Your task to perform on an android device: toggle improve location accuracy Image 0: 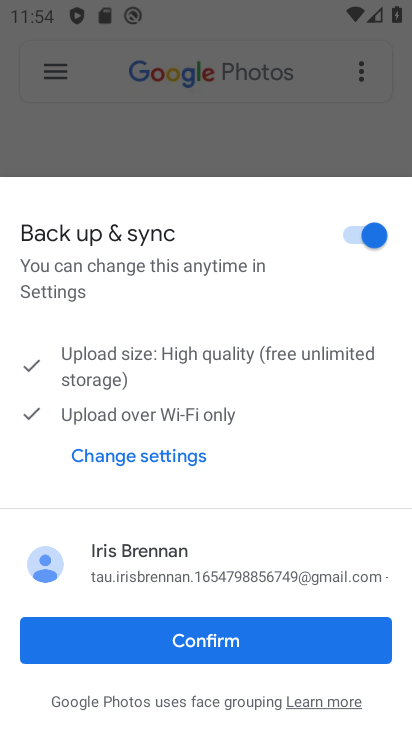
Step 0: press home button
Your task to perform on an android device: toggle improve location accuracy Image 1: 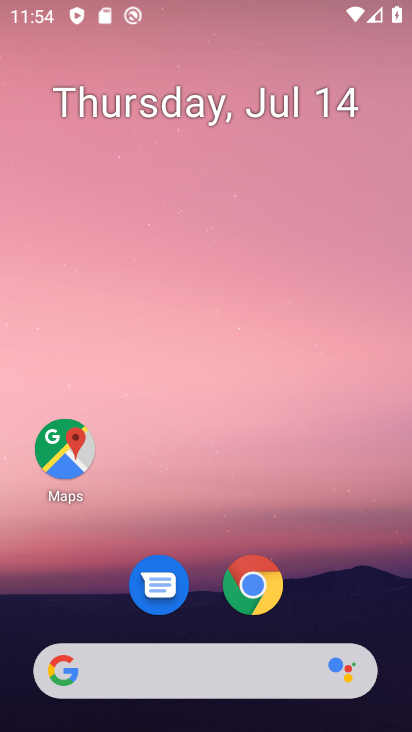
Step 1: drag from (295, 470) to (302, 33)
Your task to perform on an android device: toggle improve location accuracy Image 2: 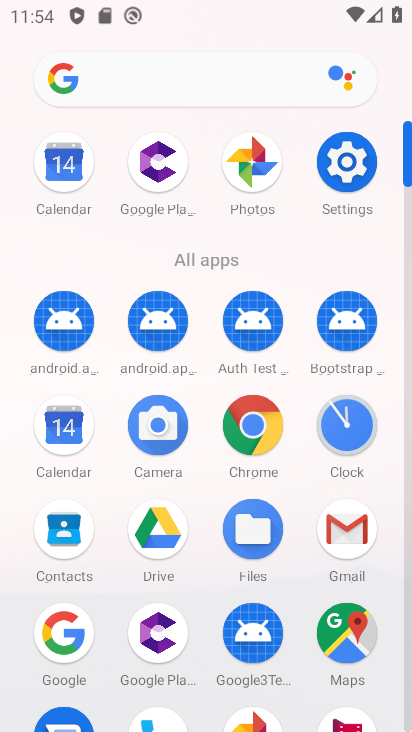
Step 2: click (344, 173)
Your task to perform on an android device: toggle improve location accuracy Image 3: 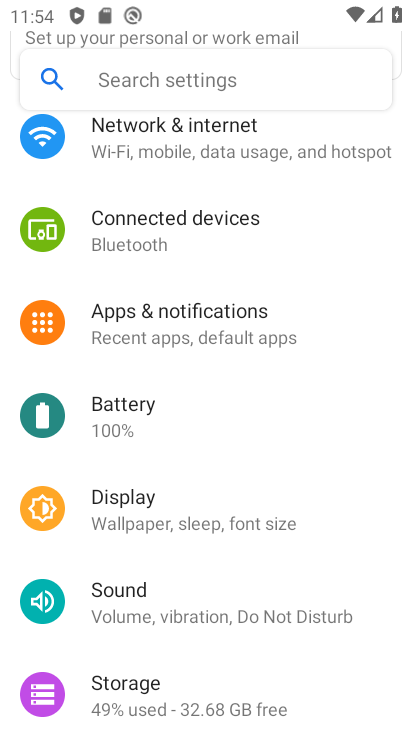
Step 3: drag from (254, 410) to (272, 103)
Your task to perform on an android device: toggle improve location accuracy Image 4: 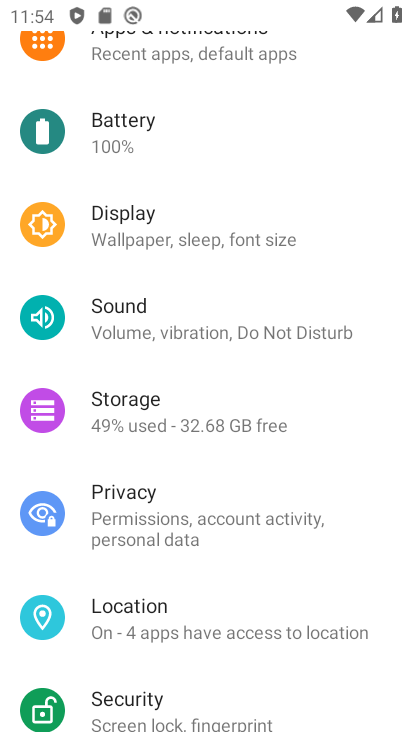
Step 4: click (228, 621)
Your task to perform on an android device: toggle improve location accuracy Image 5: 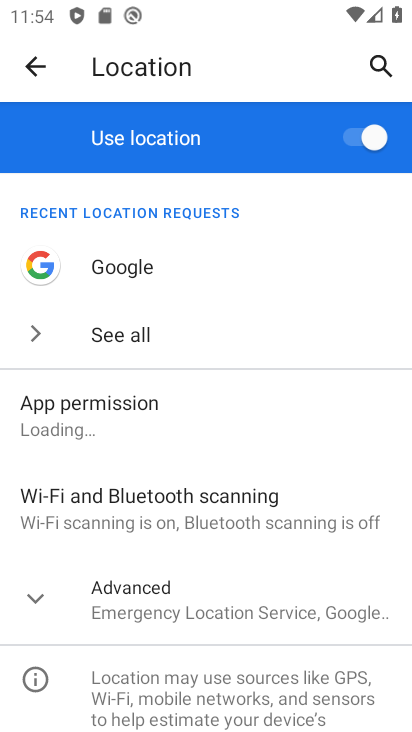
Step 5: drag from (202, 405) to (213, 87)
Your task to perform on an android device: toggle improve location accuracy Image 6: 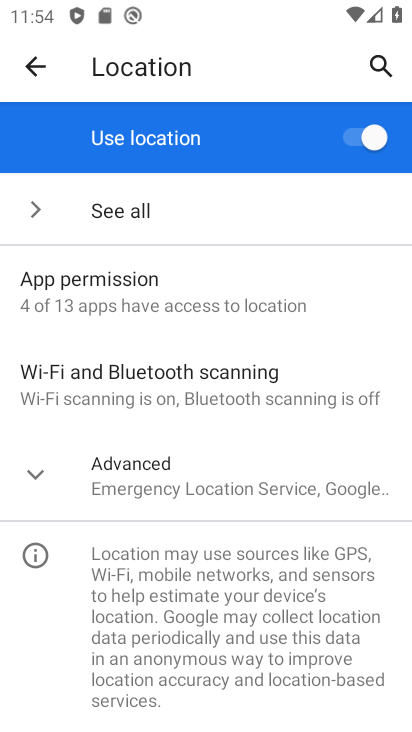
Step 6: click (36, 474)
Your task to perform on an android device: toggle improve location accuracy Image 7: 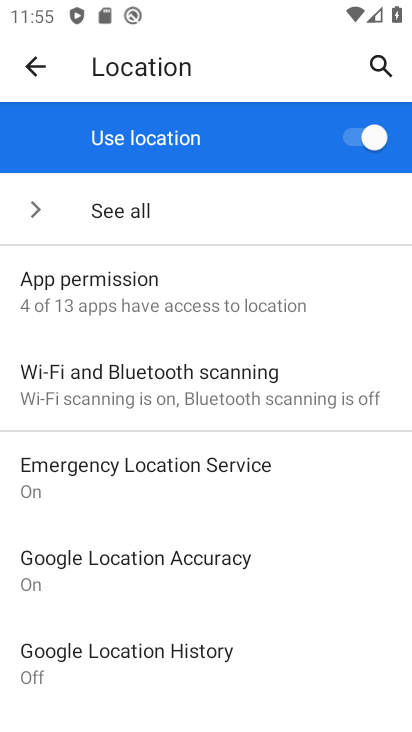
Step 7: click (139, 566)
Your task to perform on an android device: toggle improve location accuracy Image 8: 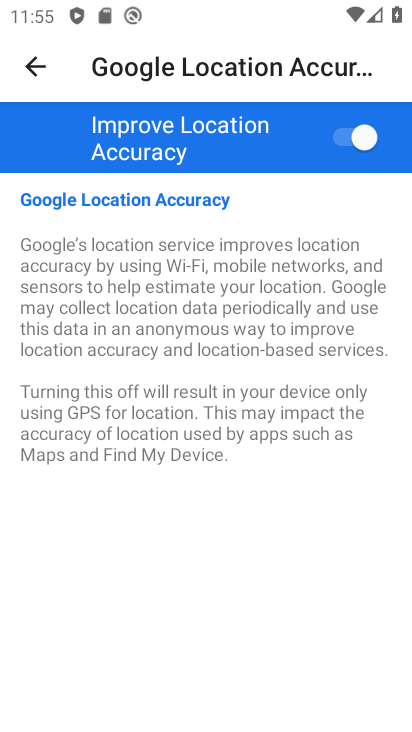
Step 8: click (359, 134)
Your task to perform on an android device: toggle improve location accuracy Image 9: 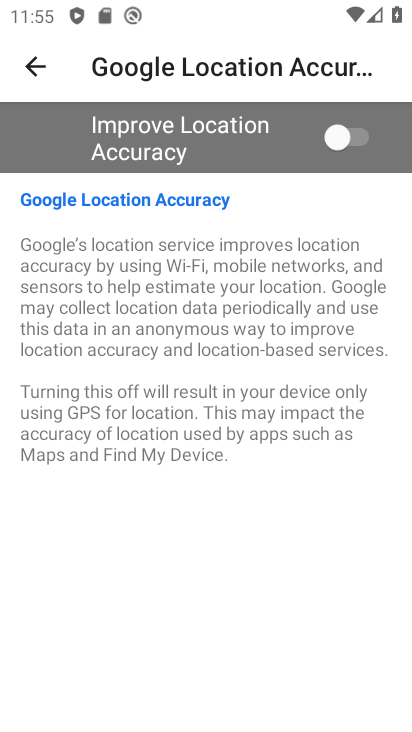
Step 9: task complete